Your task to perform on an android device: What's the weather going to be this weekend? Image 0: 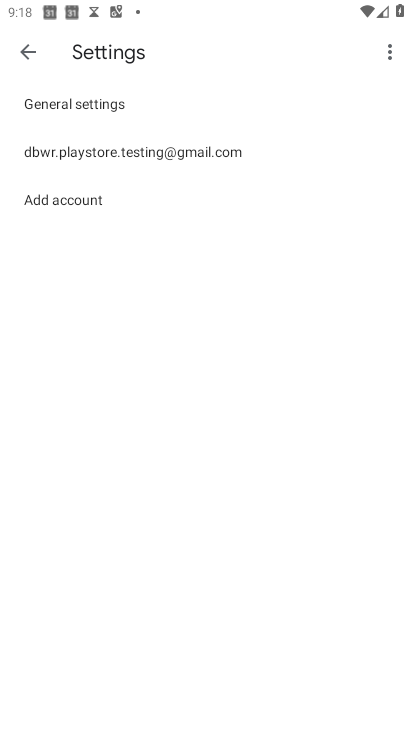
Step 0: press home button
Your task to perform on an android device: What's the weather going to be this weekend? Image 1: 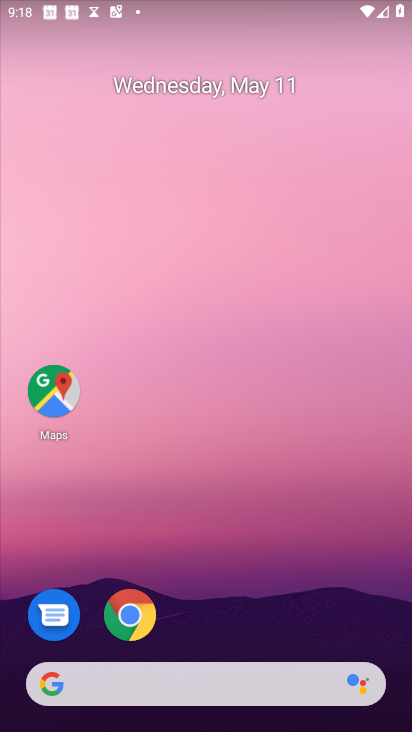
Step 1: click (163, 692)
Your task to perform on an android device: What's the weather going to be this weekend? Image 2: 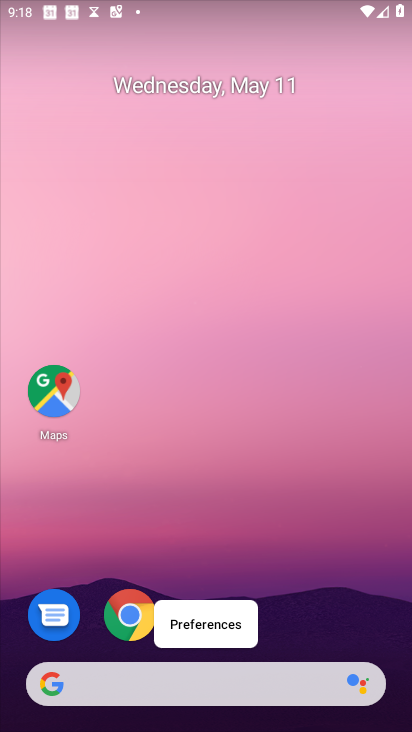
Step 2: click (182, 690)
Your task to perform on an android device: What's the weather going to be this weekend? Image 3: 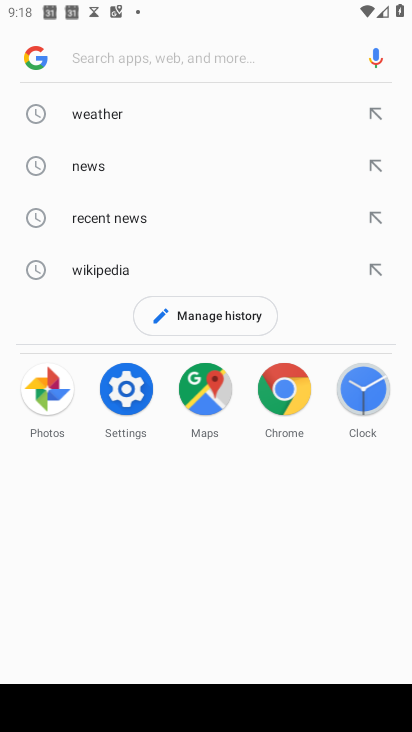
Step 3: click (99, 107)
Your task to perform on an android device: What's the weather going to be this weekend? Image 4: 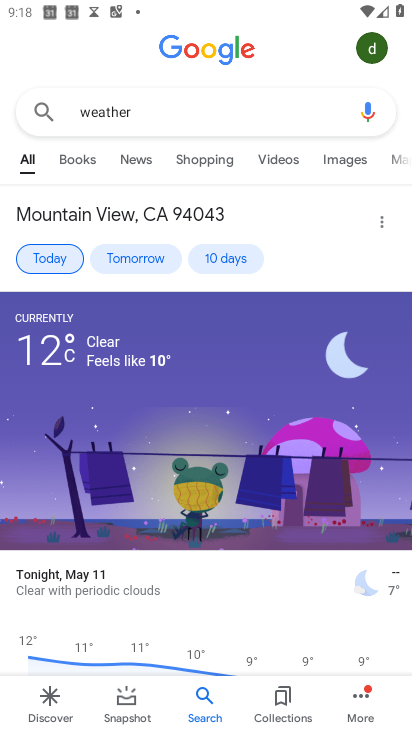
Step 4: click (205, 259)
Your task to perform on an android device: What's the weather going to be this weekend? Image 5: 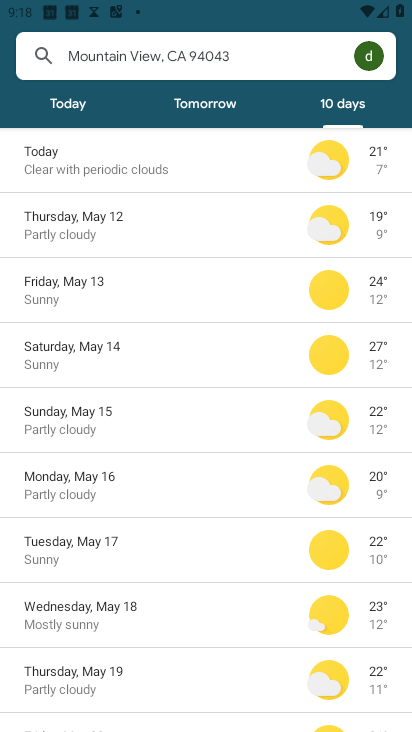
Step 5: task complete